Your task to perform on an android device: choose inbox layout in the gmail app Image 0: 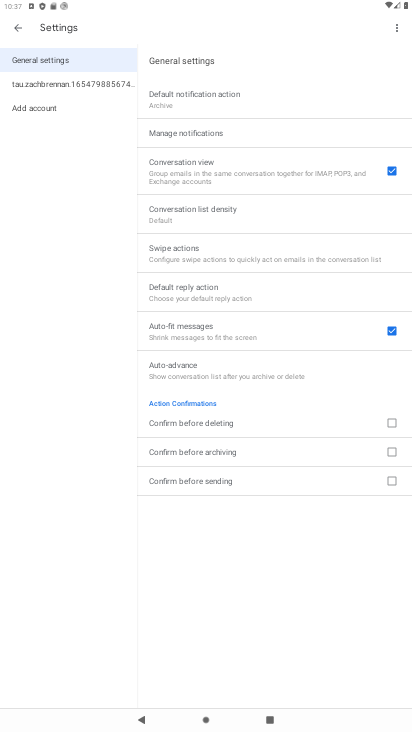
Step 0: press home button
Your task to perform on an android device: choose inbox layout in the gmail app Image 1: 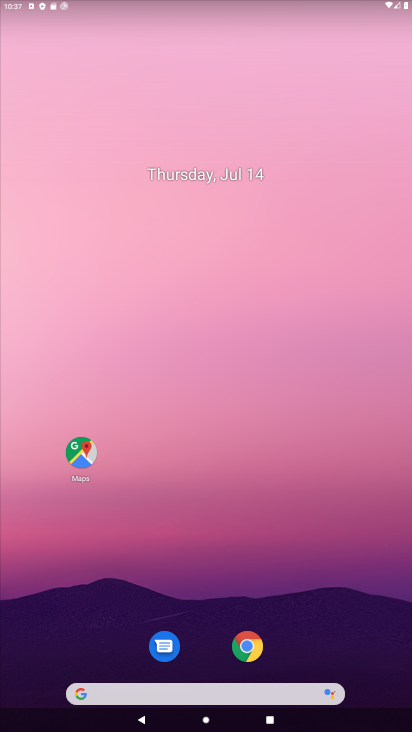
Step 1: drag from (201, 286) to (196, 172)
Your task to perform on an android device: choose inbox layout in the gmail app Image 2: 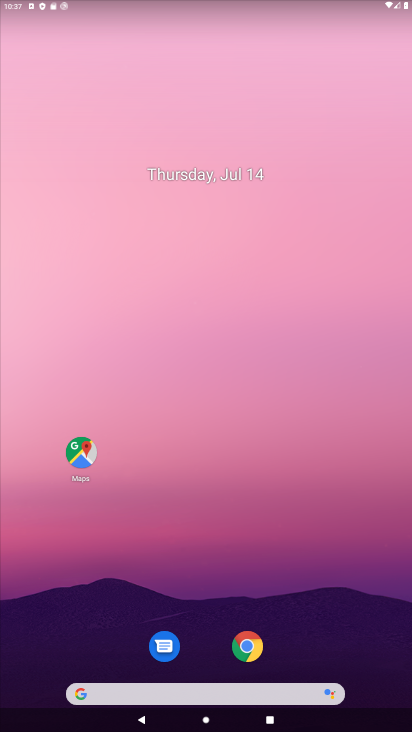
Step 2: drag from (210, 624) to (204, 150)
Your task to perform on an android device: choose inbox layout in the gmail app Image 3: 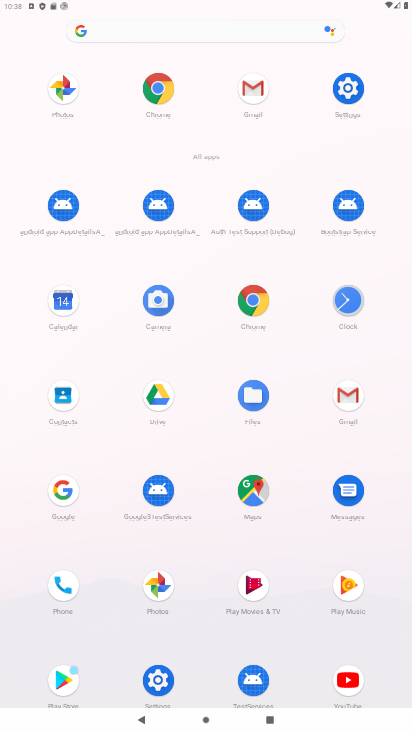
Step 3: click (260, 103)
Your task to perform on an android device: choose inbox layout in the gmail app Image 4: 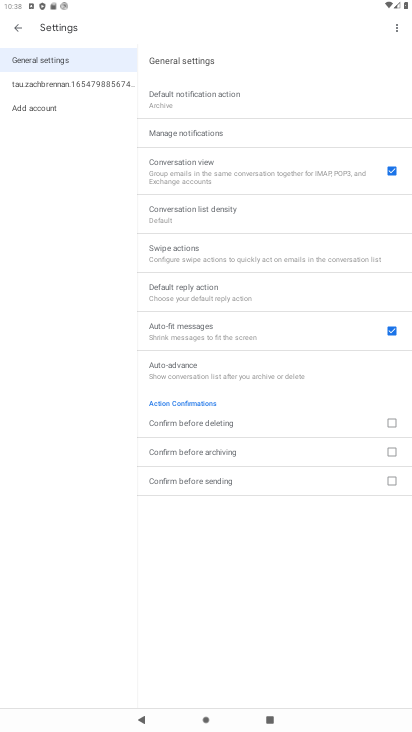
Step 4: click (39, 90)
Your task to perform on an android device: choose inbox layout in the gmail app Image 5: 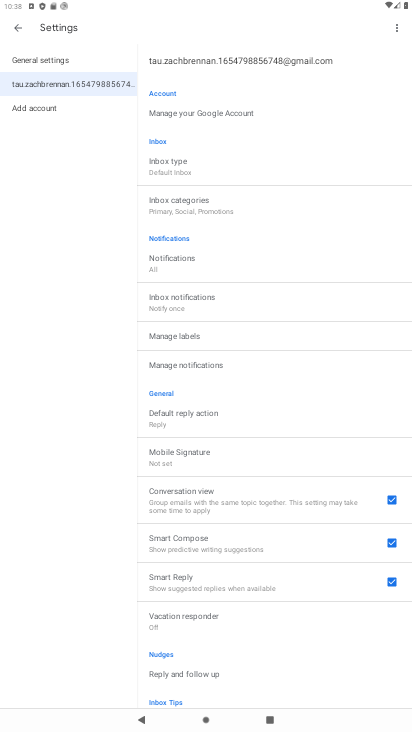
Step 5: click (170, 177)
Your task to perform on an android device: choose inbox layout in the gmail app Image 6: 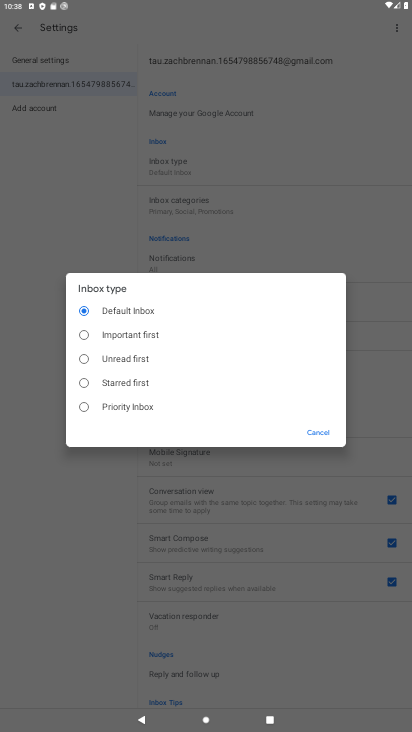
Step 6: click (106, 410)
Your task to perform on an android device: choose inbox layout in the gmail app Image 7: 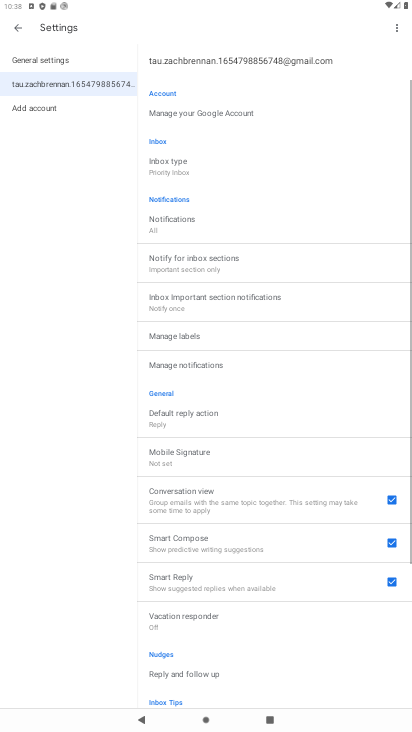
Step 7: task complete